Your task to perform on an android device: Set the phone to "Do not disturb". Image 0: 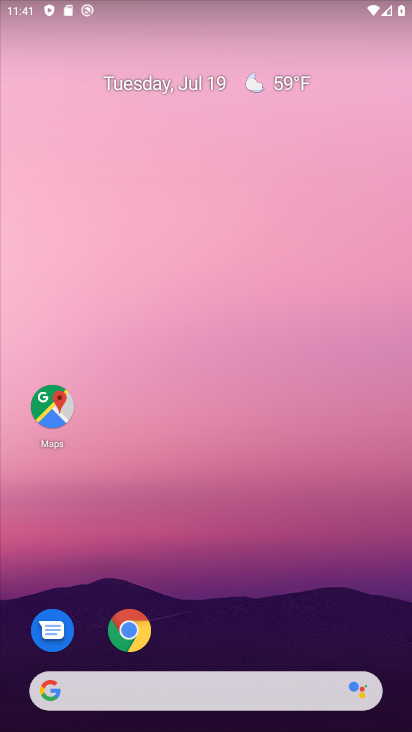
Step 0: drag from (296, 704) to (264, 29)
Your task to perform on an android device: Set the phone to "Do not disturb". Image 1: 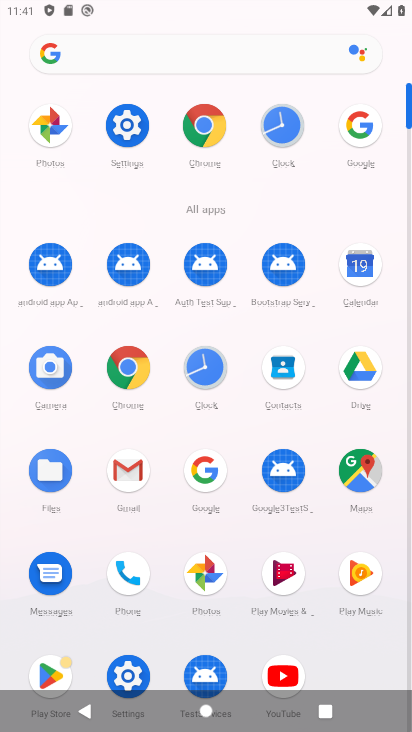
Step 1: click (139, 122)
Your task to perform on an android device: Set the phone to "Do not disturb". Image 2: 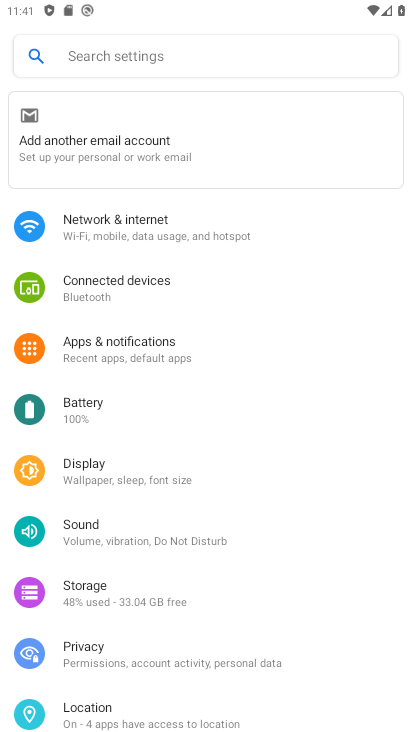
Step 2: click (119, 529)
Your task to perform on an android device: Set the phone to "Do not disturb". Image 3: 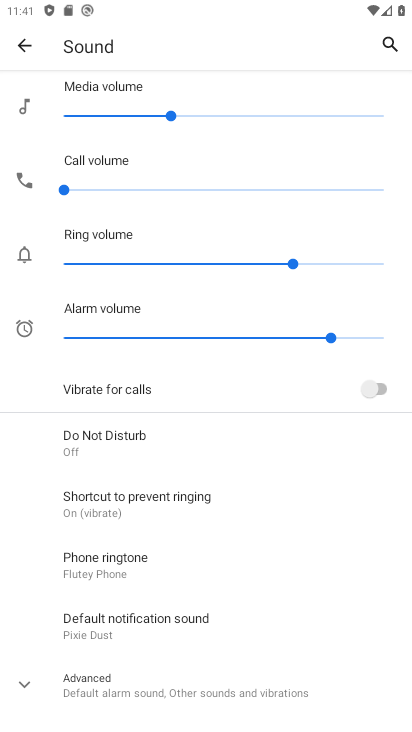
Step 3: click (125, 446)
Your task to perform on an android device: Set the phone to "Do not disturb". Image 4: 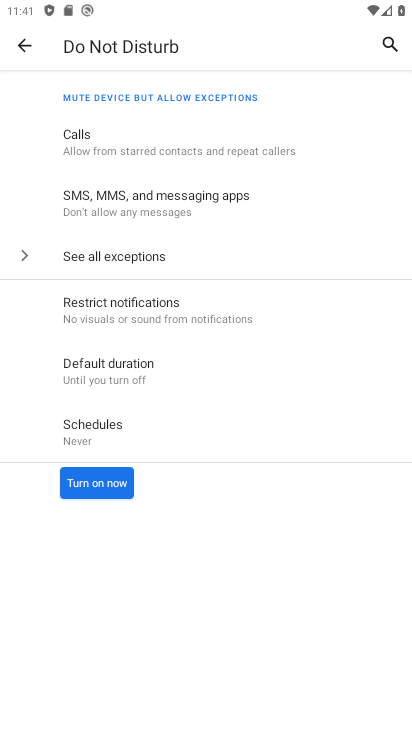
Step 4: click (111, 491)
Your task to perform on an android device: Set the phone to "Do not disturb". Image 5: 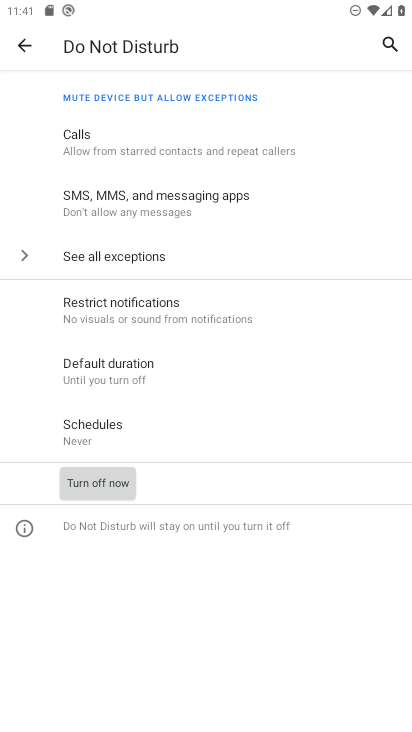
Step 5: task complete